Your task to perform on an android device: Go to settings Image 0: 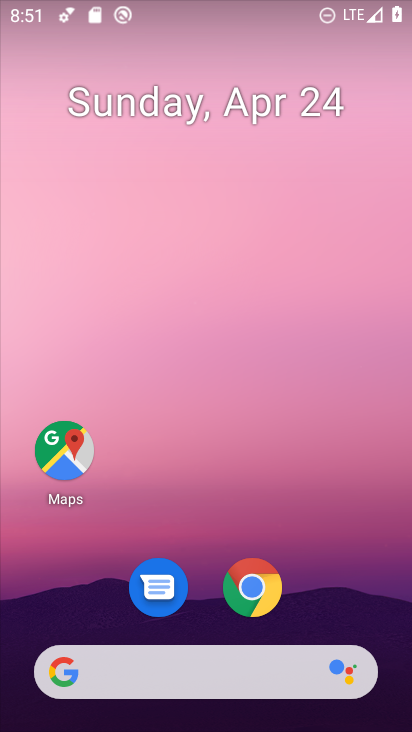
Step 0: drag from (368, 570) to (349, 195)
Your task to perform on an android device: Go to settings Image 1: 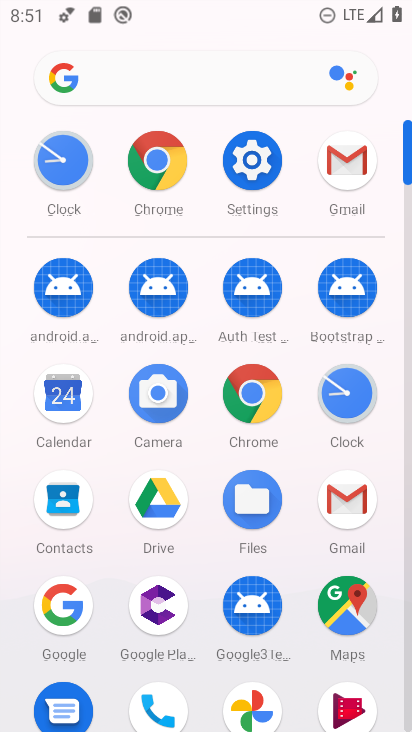
Step 1: click (241, 150)
Your task to perform on an android device: Go to settings Image 2: 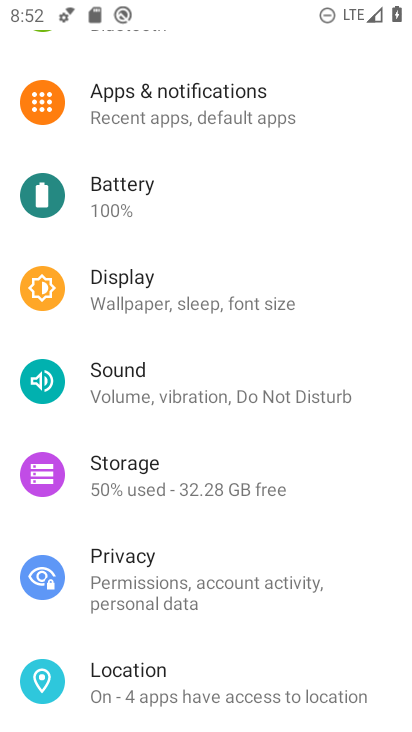
Step 2: task complete